Your task to perform on an android device: Go to network settings Image 0: 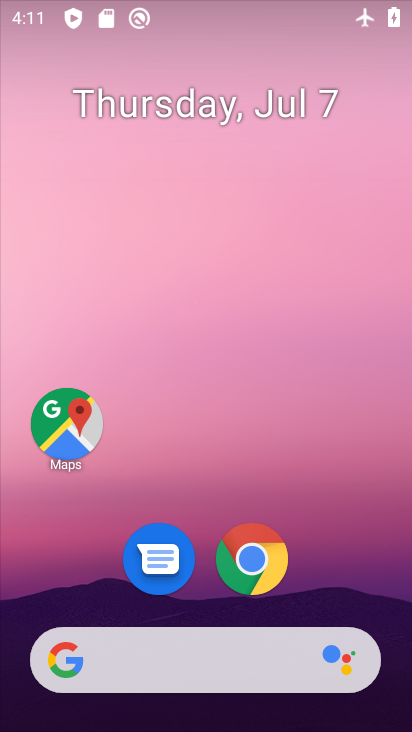
Step 0: press home button
Your task to perform on an android device: Go to network settings Image 1: 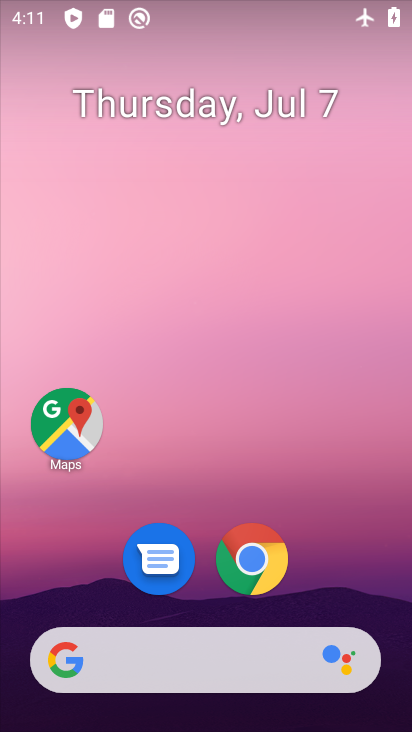
Step 1: drag from (185, 615) to (189, 195)
Your task to perform on an android device: Go to network settings Image 2: 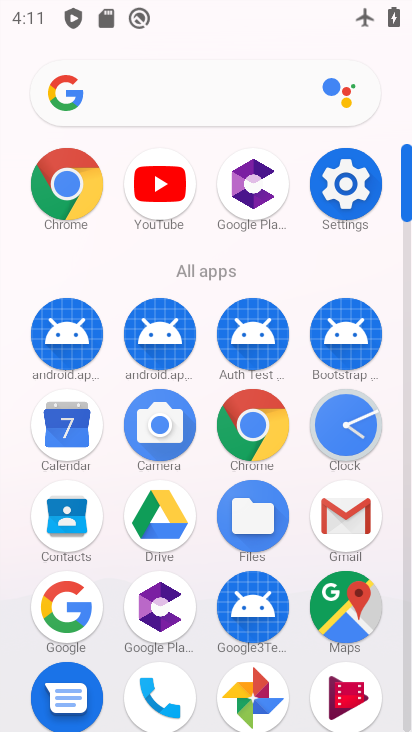
Step 2: click (360, 184)
Your task to perform on an android device: Go to network settings Image 3: 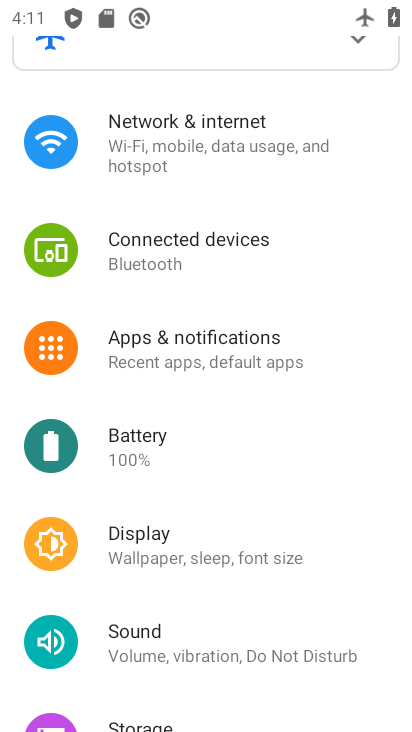
Step 3: click (159, 174)
Your task to perform on an android device: Go to network settings Image 4: 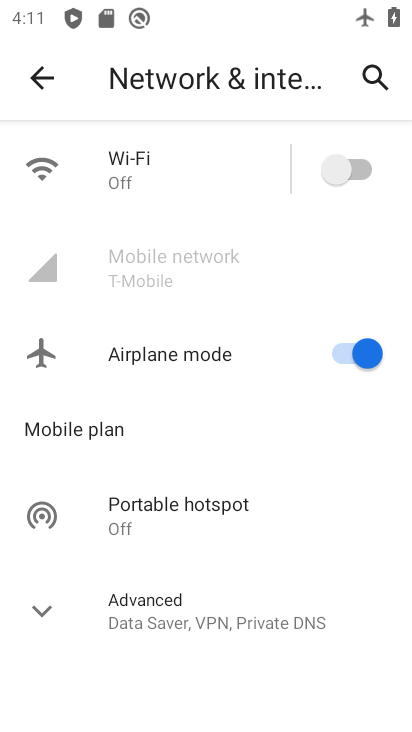
Step 4: click (150, 621)
Your task to perform on an android device: Go to network settings Image 5: 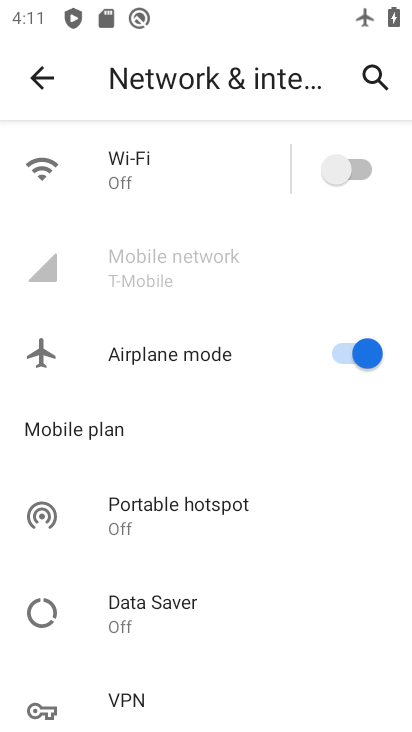
Step 5: task complete